Your task to perform on an android device: Do I have any events tomorrow? Image 0: 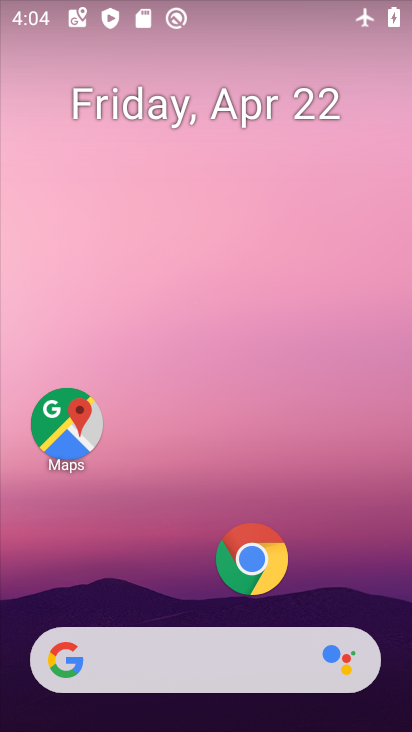
Step 0: click (284, 426)
Your task to perform on an android device: Do I have any events tomorrow? Image 1: 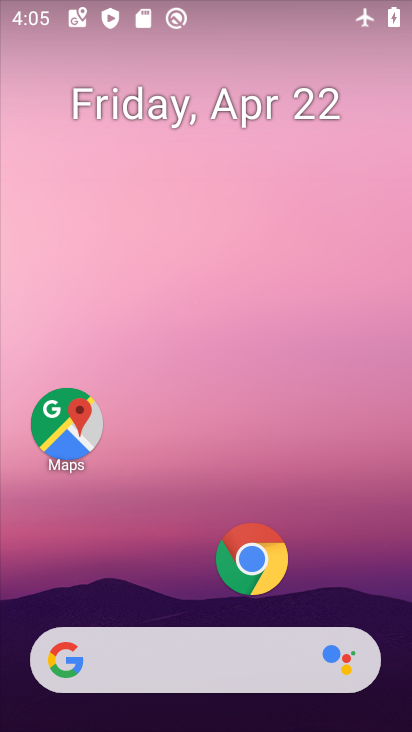
Step 1: drag from (147, 600) to (222, 216)
Your task to perform on an android device: Do I have any events tomorrow? Image 2: 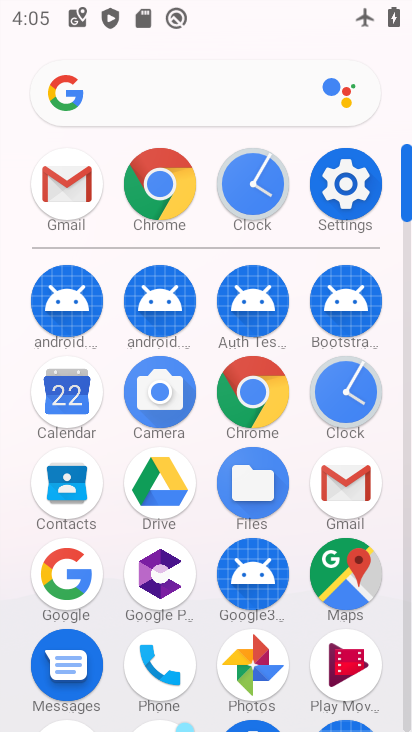
Step 2: click (68, 403)
Your task to perform on an android device: Do I have any events tomorrow? Image 3: 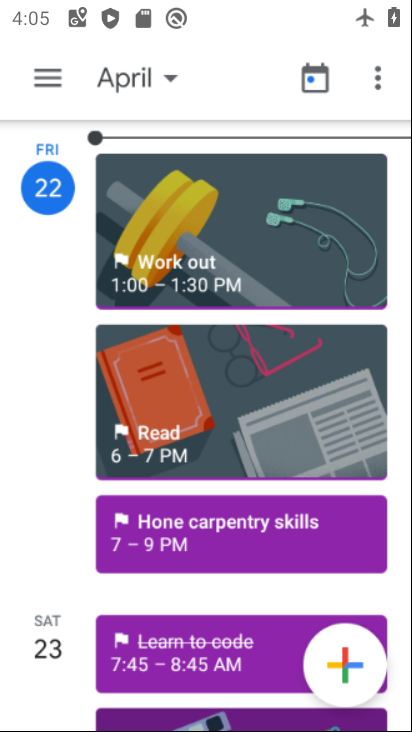
Step 3: click (36, 60)
Your task to perform on an android device: Do I have any events tomorrow? Image 4: 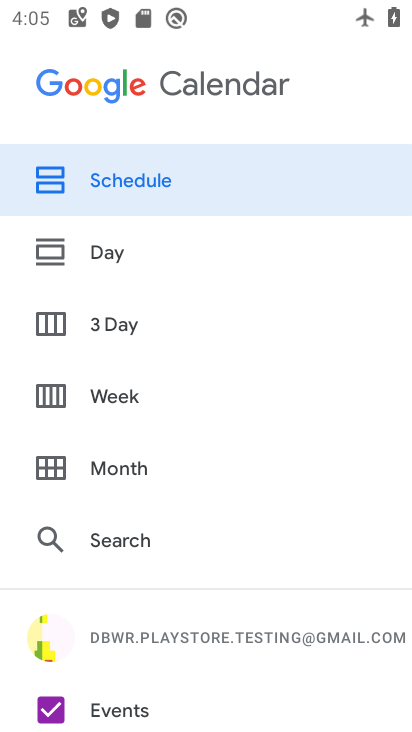
Step 4: click (93, 318)
Your task to perform on an android device: Do I have any events tomorrow? Image 5: 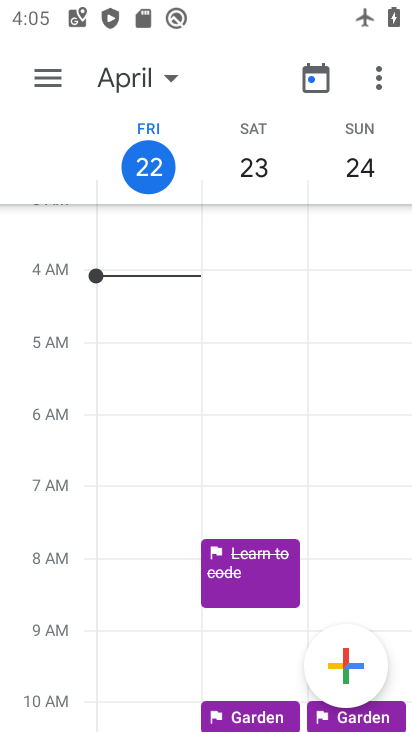
Step 5: task complete